Your task to perform on an android device: check out phone information Image 0: 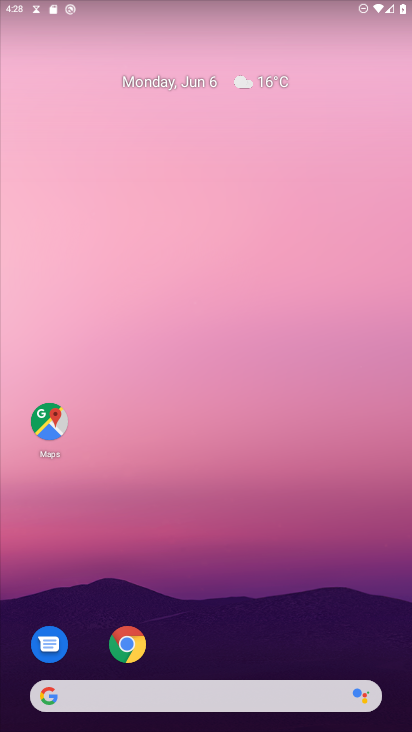
Step 0: drag from (142, 587) to (160, 1)
Your task to perform on an android device: check out phone information Image 1: 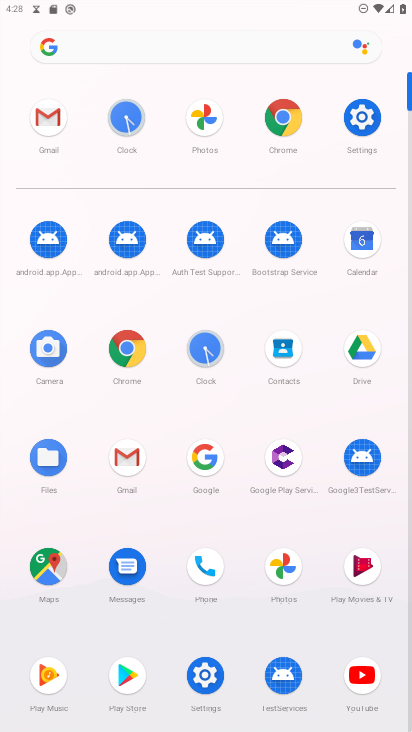
Step 1: click (368, 127)
Your task to perform on an android device: check out phone information Image 2: 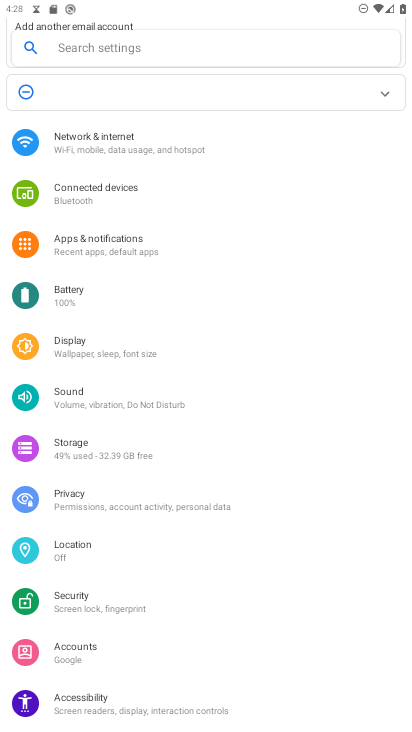
Step 2: drag from (299, 682) to (376, 226)
Your task to perform on an android device: check out phone information Image 3: 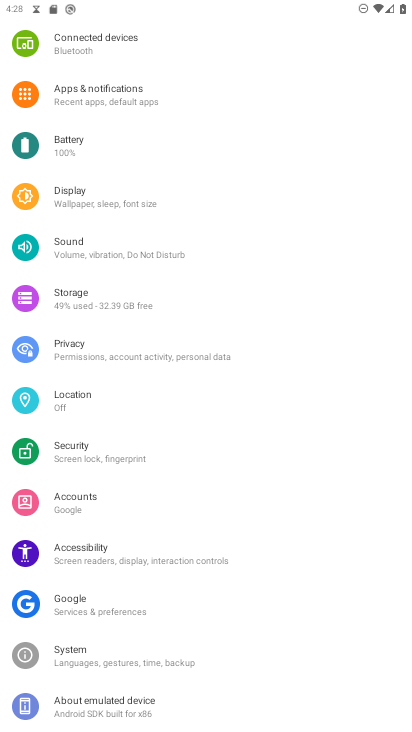
Step 3: click (158, 708)
Your task to perform on an android device: check out phone information Image 4: 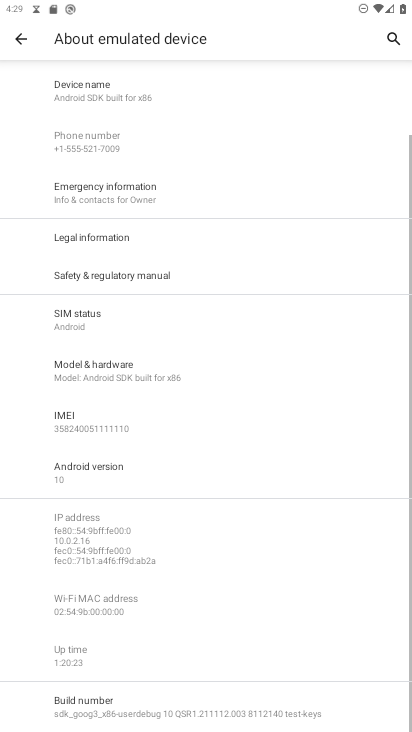
Step 4: task complete